Your task to perform on an android device: Search for vegetarian restaurants on Maps Image 0: 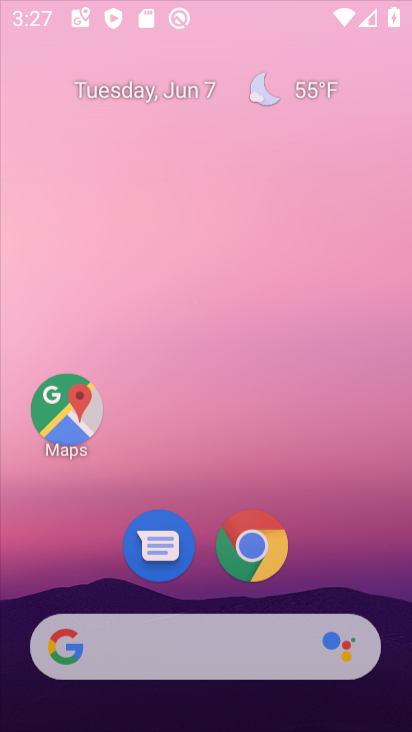
Step 0: press home button
Your task to perform on an android device: Search for vegetarian restaurants on Maps Image 1: 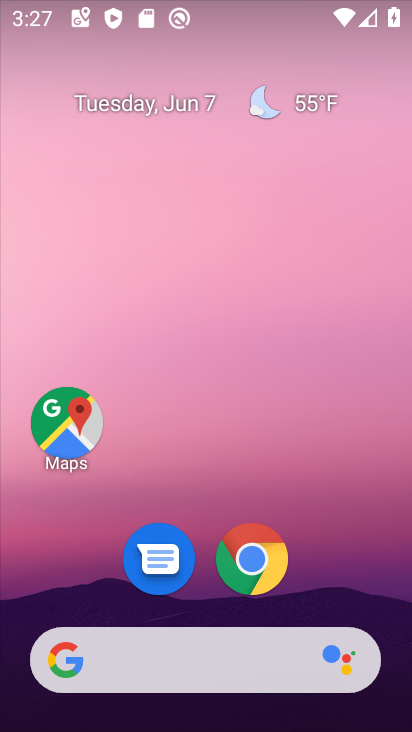
Step 1: drag from (188, 705) to (212, 148)
Your task to perform on an android device: Search for vegetarian restaurants on Maps Image 2: 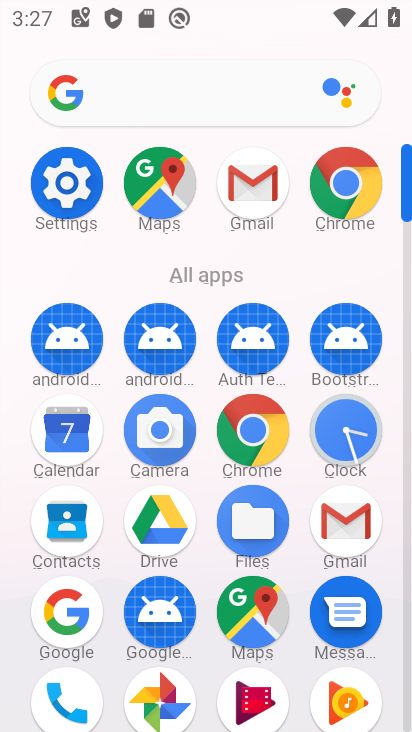
Step 2: click (252, 610)
Your task to perform on an android device: Search for vegetarian restaurants on Maps Image 3: 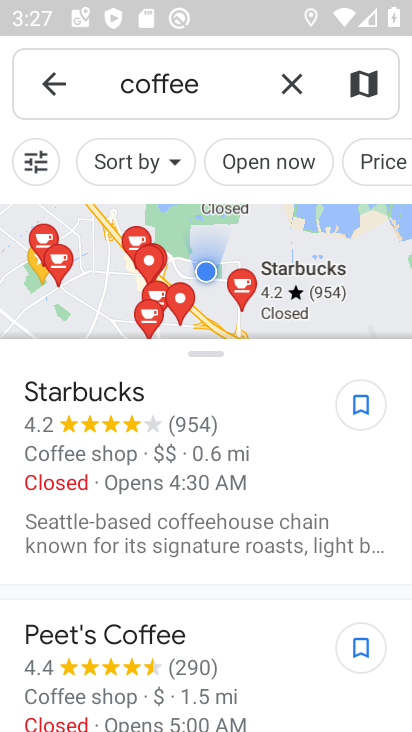
Step 3: click (291, 84)
Your task to perform on an android device: Search for vegetarian restaurants on Maps Image 4: 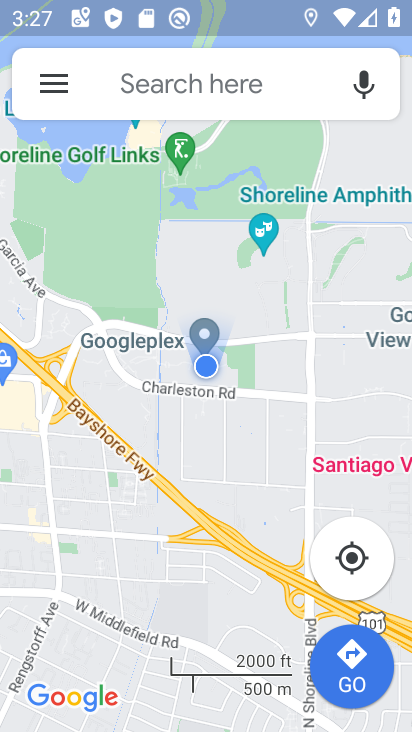
Step 4: click (192, 82)
Your task to perform on an android device: Search for vegetarian restaurants on Maps Image 5: 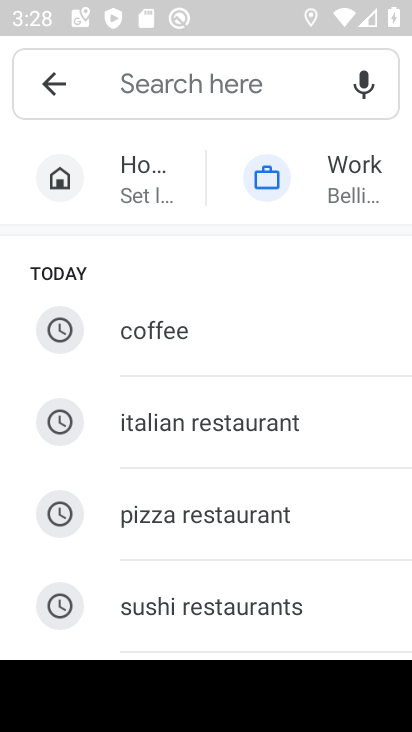
Step 5: type "vegetarian restaurants"
Your task to perform on an android device: Search for vegetarian restaurants on Maps Image 6: 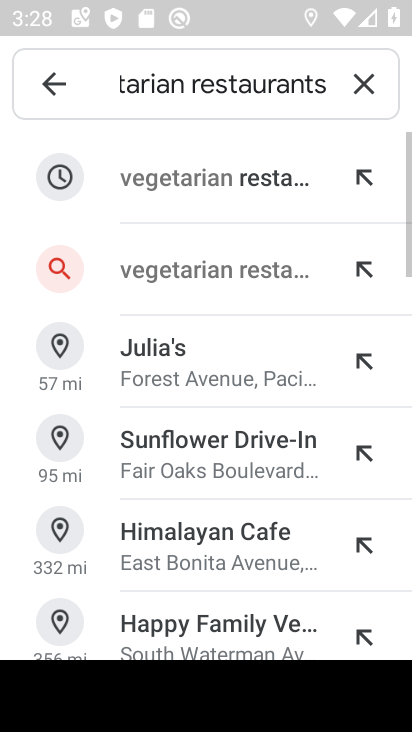
Step 6: click (180, 173)
Your task to perform on an android device: Search for vegetarian restaurants on Maps Image 7: 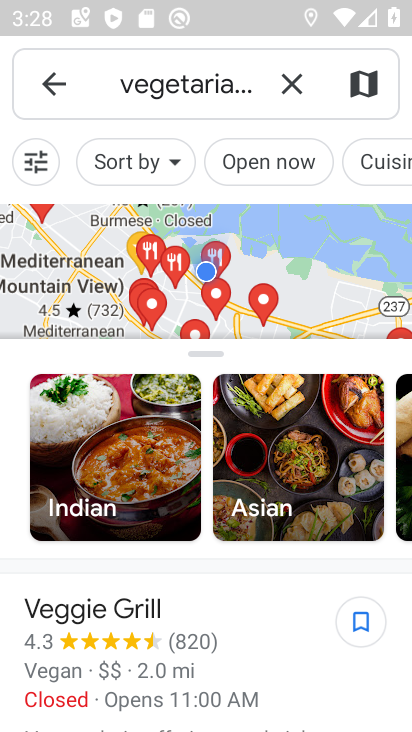
Step 7: task complete